Your task to perform on an android device: turn off picture-in-picture Image 0: 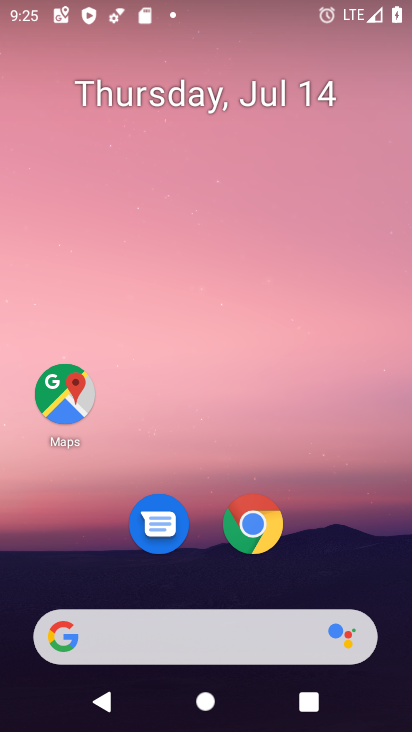
Step 0: click (266, 511)
Your task to perform on an android device: turn off picture-in-picture Image 1: 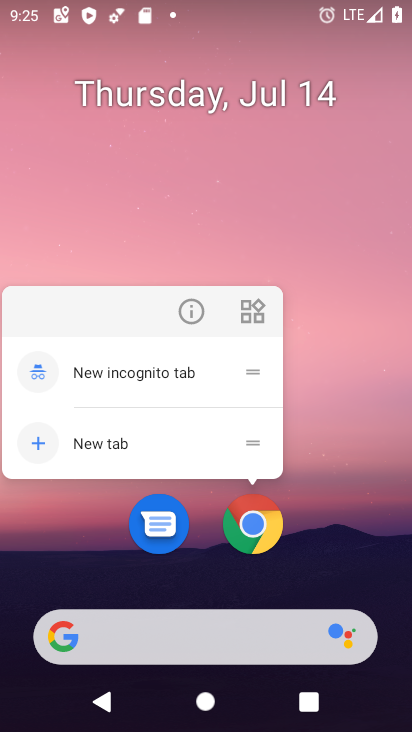
Step 1: click (188, 316)
Your task to perform on an android device: turn off picture-in-picture Image 2: 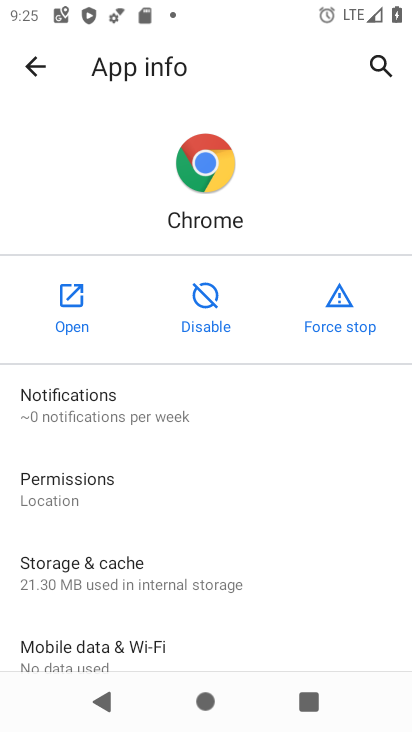
Step 2: drag from (281, 550) to (322, 3)
Your task to perform on an android device: turn off picture-in-picture Image 3: 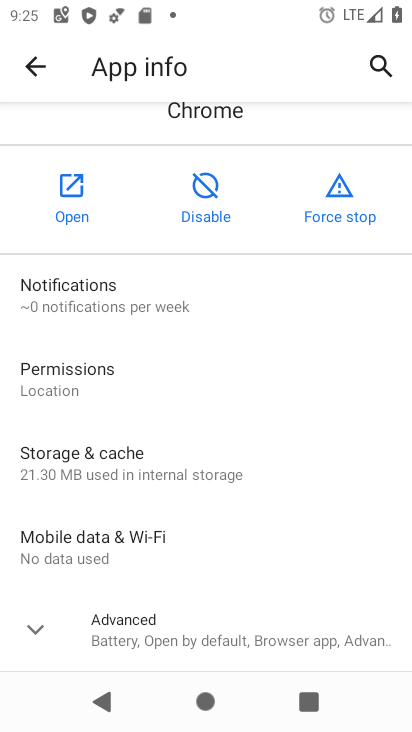
Step 3: click (39, 625)
Your task to perform on an android device: turn off picture-in-picture Image 4: 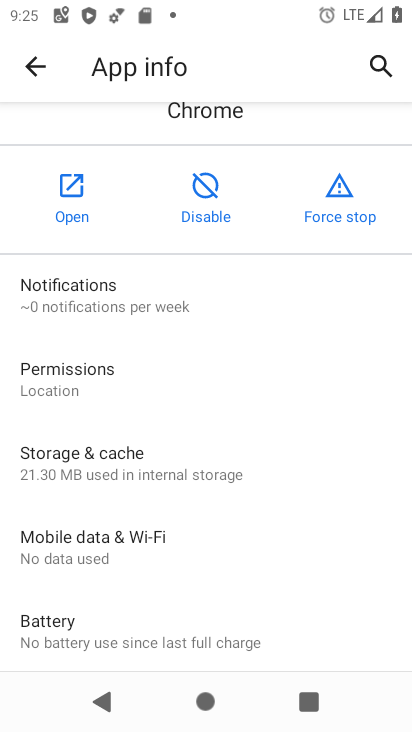
Step 4: drag from (212, 534) to (258, 168)
Your task to perform on an android device: turn off picture-in-picture Image 5: 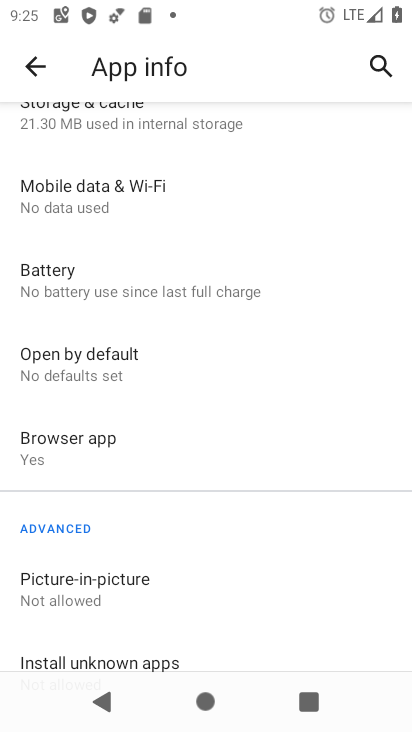
Step 5: click (95, 593)
Your task to perform on an android device: turn off picture-in-picture Image 6: 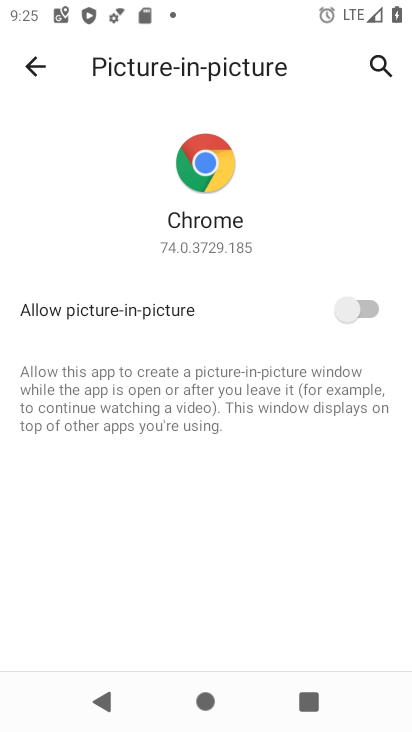
Step 6: task complete